Your task to perform on an android device: Go to calendar. Show me events next week Image 0: 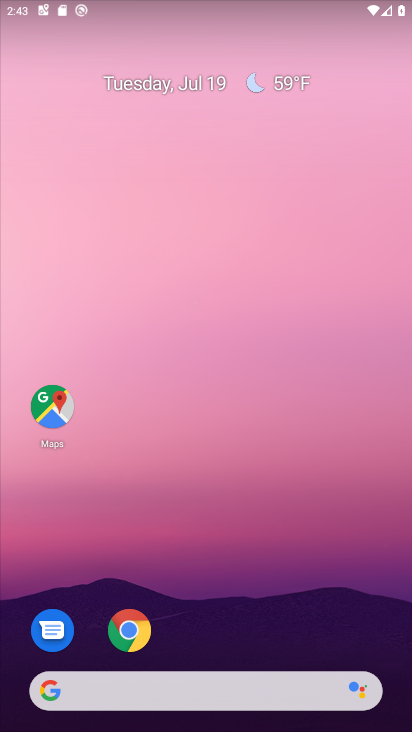
Step 0: drag from (287, 576) to (214, 203)
Your task to perform on an android device: Go to calendar. Show me events next week Image 1: 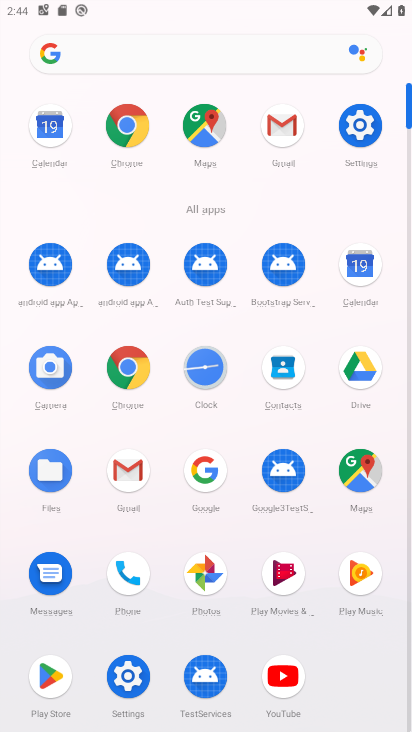
Step 1: click (354, 273)
Your task to perform on an android device: Go to calendar. Show me events next week Image 2: 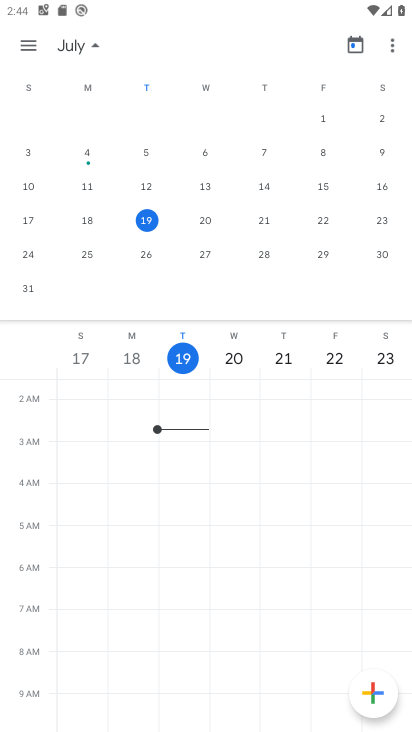
Step 2: click (142, 252)
Your task to perform on an android device: Go to calendar. Show me events next week Image 3: 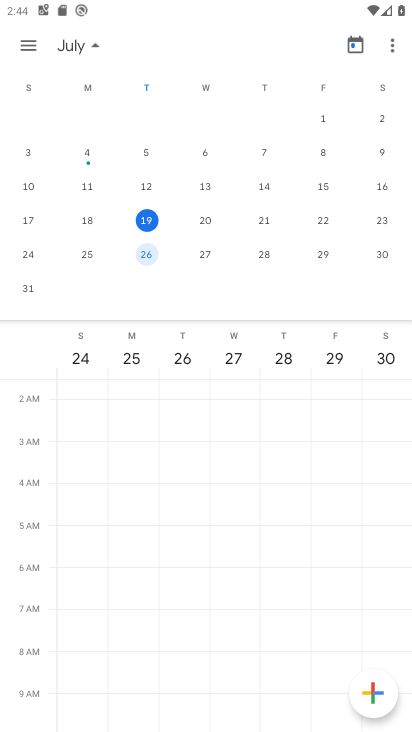
Step 3: task complete